Your task to perform on an android device: toggle notifications settings in the gmail app Image 0: 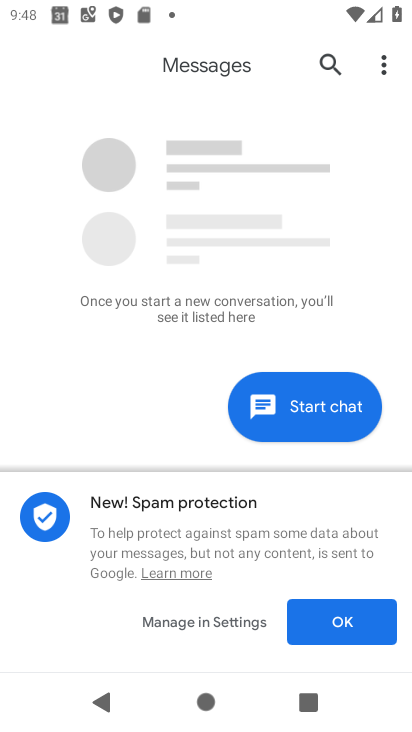
Step 0: press home button
Your task to perform on an android device: toggle notifications settings in the gmail app Image 1: 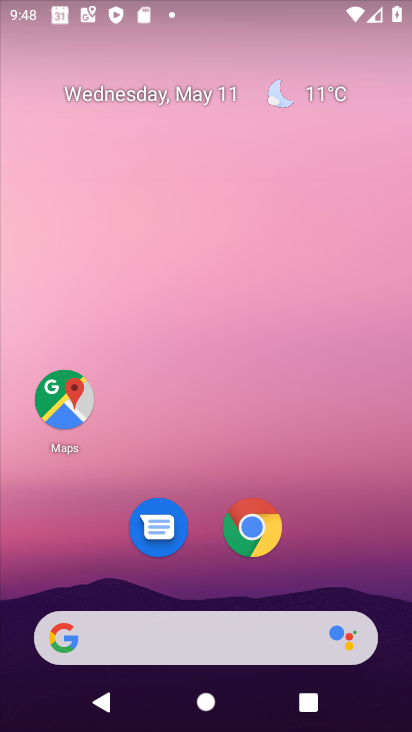
Step 1: drag from (344, 453) to (314, 48)
Your task to perform on an android device: toggle notifications settings in the gmail app Image 2: 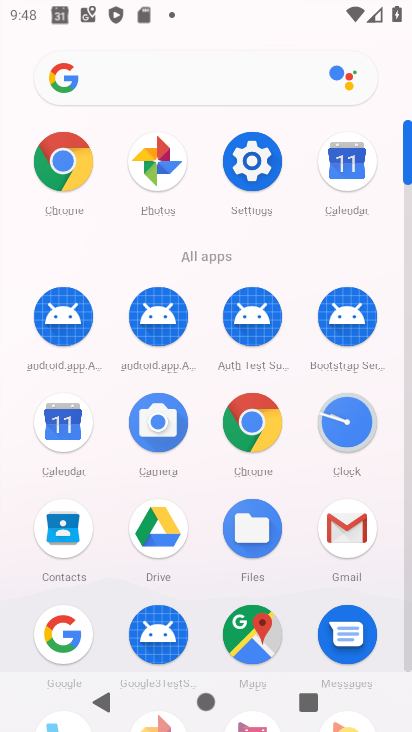
Step 2: click (371, 533)
Your task to perform on an android device: toggle notifications settings in the gmail app Image 3: 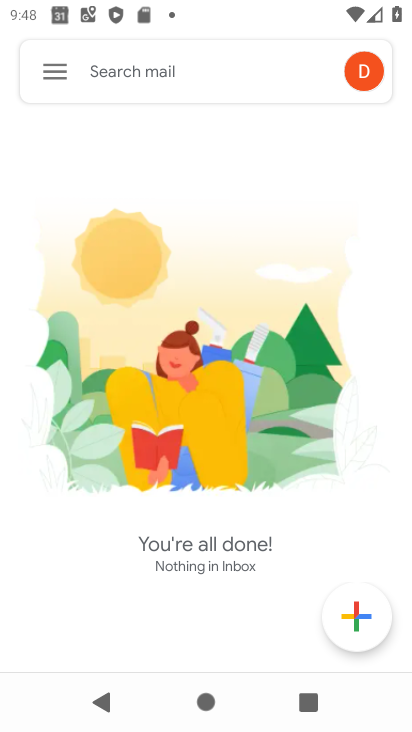
Step 3: click (69, 85)
Your task to perform on an android device: toggle notifications settings in the gmail app Image 4: 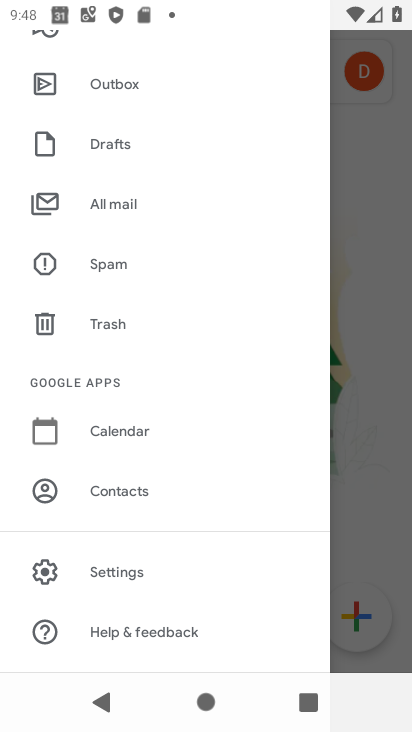
Step 4: drag from (124, 608) to (187, 121)
Your task to perform on an android device: toggle notifications settings in the gmail app Image 5: 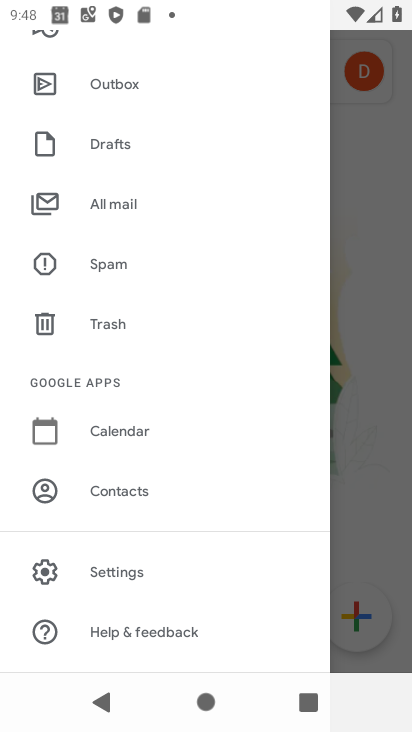
Step 5: click (148, 568)
Your task to perform on an android device: toggle notifications settings in the gmail app Image 6: 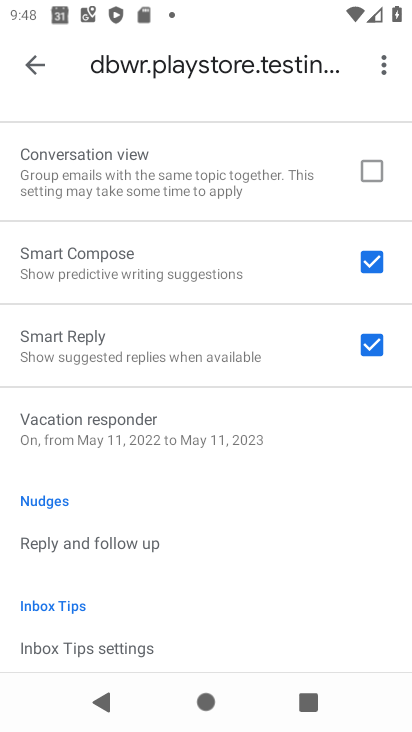
Step 6: drag from (188, 614) to (165, 233)
Your task to perform on an android device: toggle notifications settings in the gmail app Image 7: 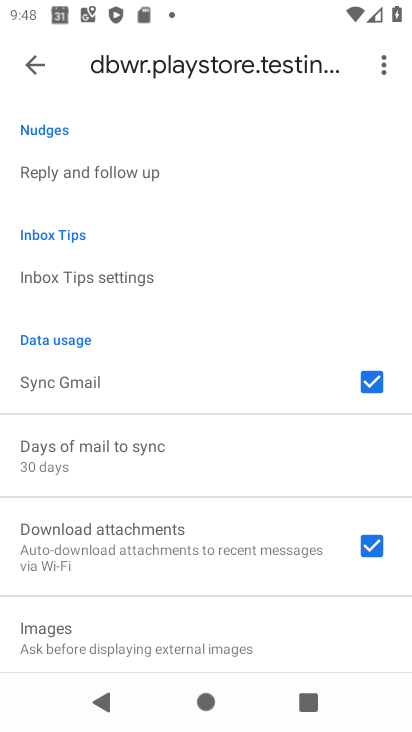
Step 7: drag from (190, 614) to (262, 180)
Your task to perform on an android device: toggle notifications settings in the gmail app Image 8: 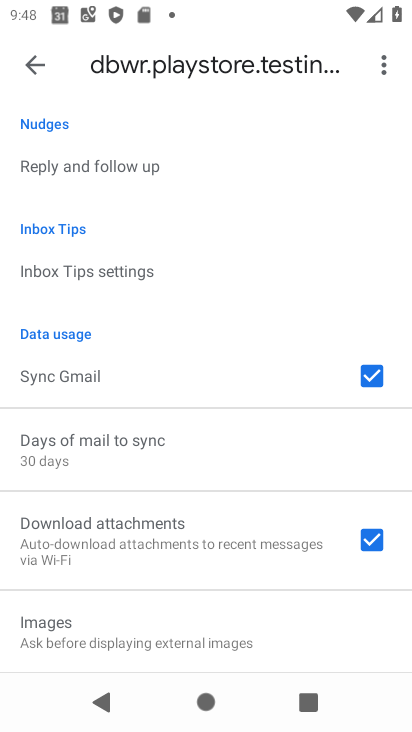
Step 8: drag from (258, 190) to (253, 600)
Your task to perform on an android device: toggle notifications settings in the gmail app Image 9: 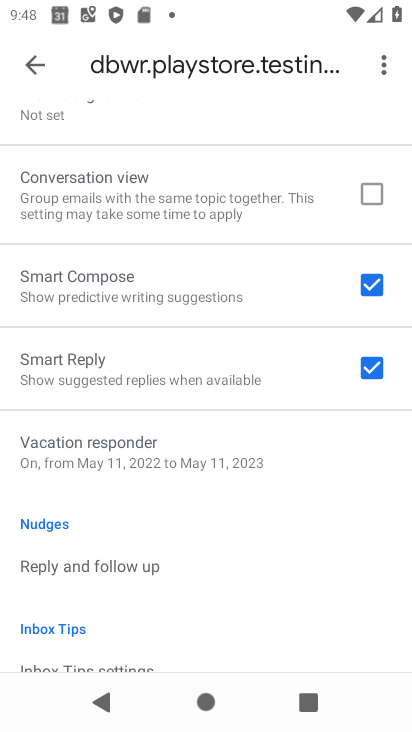
Step 9: drag from (219, 278) to (281, 571)
Your task to perform on an android device: toggle notifications settings in the gmail app Image 10: 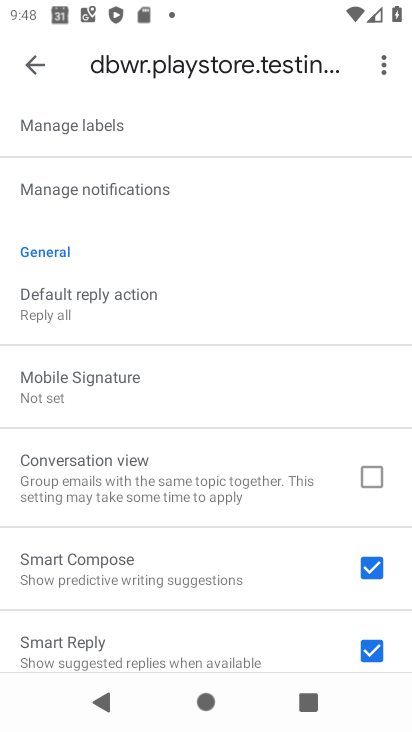
Step 10: drag from (221, 161) to (248, 594)
Your task to perform on an android device: toggle notifications settings in the gmail app Image 11: 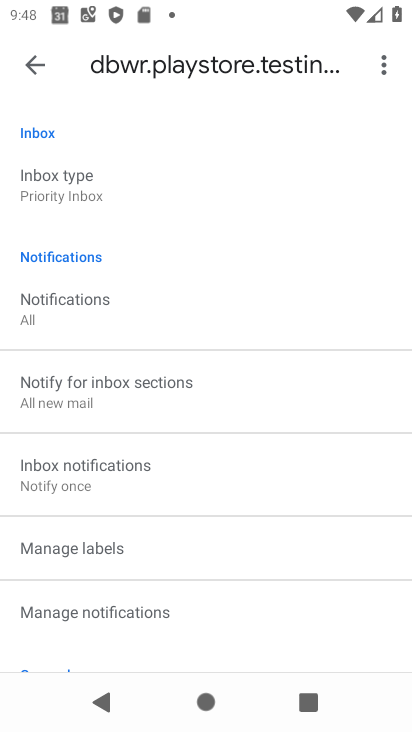
Step 11: click (72, 302)
Your task to perform on an android device: toggle notifications settings in the gmail app Image 12: 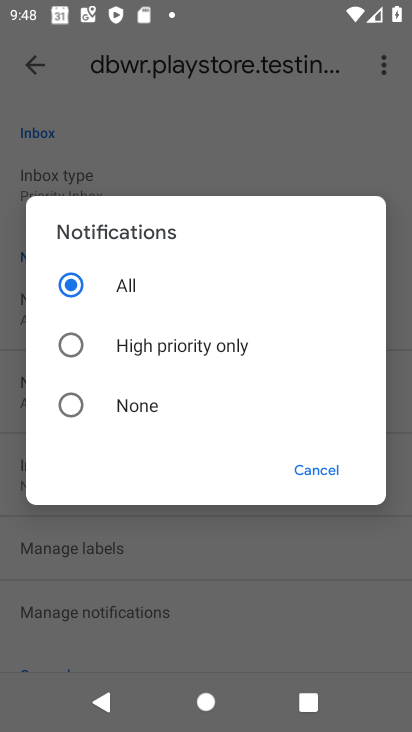
Step 12: click (136, 349)
Your task to perform on an android device: toggle notifications settings in the gmail app Image 13: 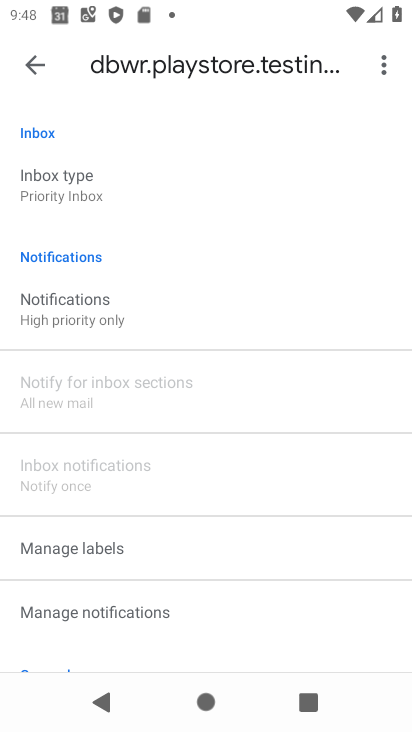
Step 13: task complete